Your task to perform on an android device: delete location history Image 0: 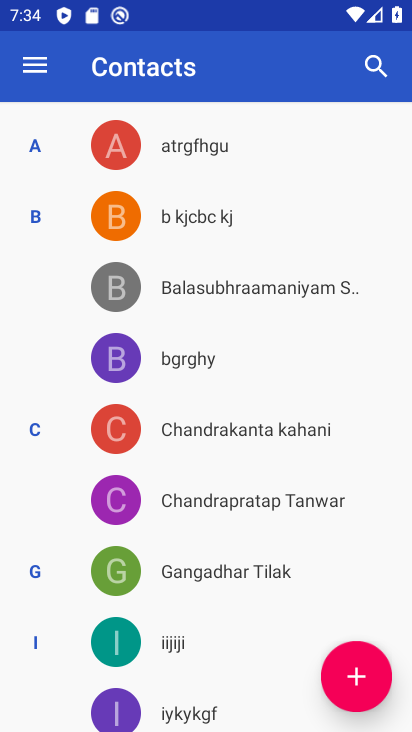
Step 0: press home button
Your task to perform on an android device: delete location history Image 1: 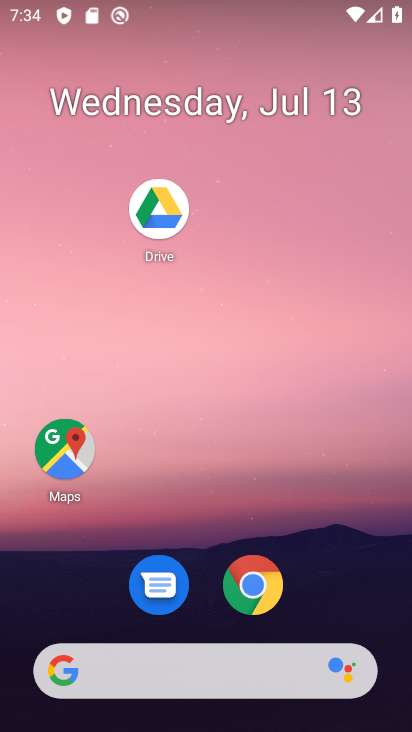
Step 1: click (60, 462)
Your task to perform on an android device: delete location history Image 2: 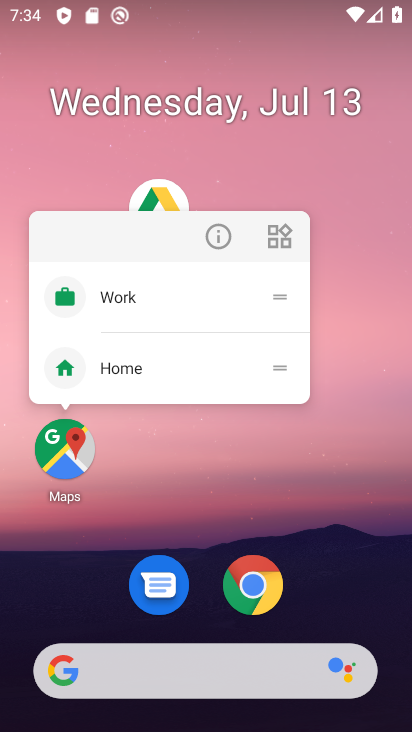
Step 2: click (65, 452)
Your task to perform on an android device: delete location history Image 3: 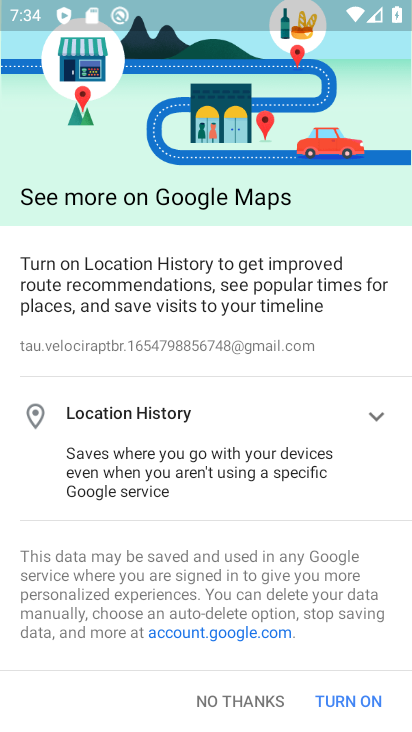
Step 3: click (249, 706)
Your task to perform on an android device: delete location history Image 4: 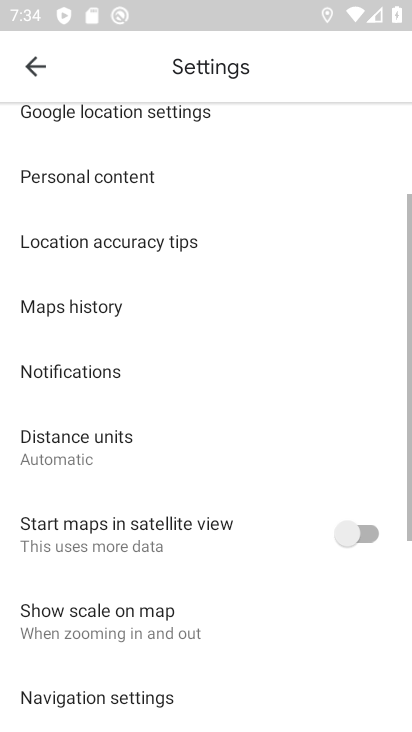
Step 4: click (43, 66)
Your task to perform on an android device: delete location history Image 5: 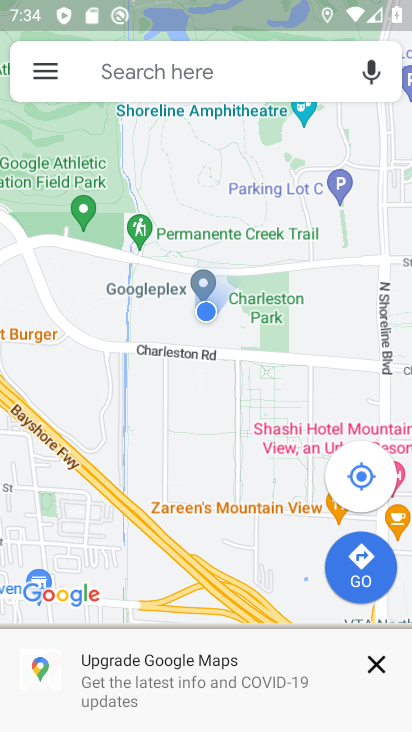
Step 5: click (43, 66)
Your task to perform on an android device: delete location history Image 6: 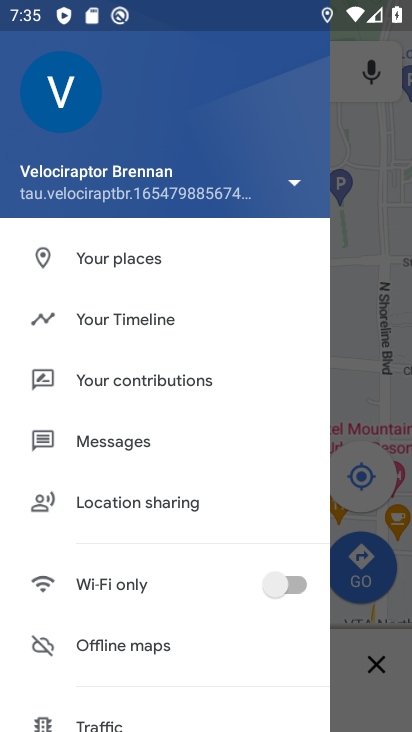
Step 6: click (151, 323)
Your task to perform on an android device: delete location history Image 7: 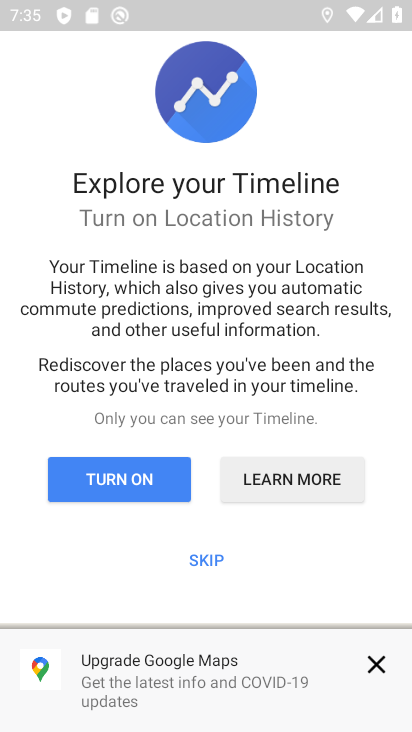
Step 7: click (218, 554)
Your task to perform on an android device: delete location history Image 8: 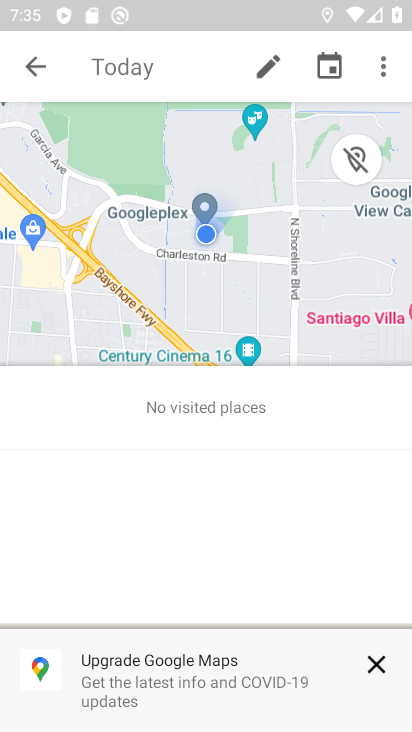
Step 8: click (379, 70)
Your task to perform on an android device: delete location history Image 9: 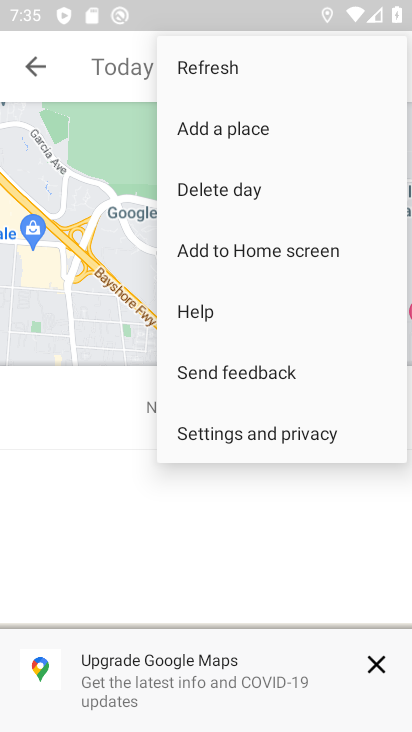
Step 9: click (265, 434)
Your task to perform on an android device: delete location history Image 10: 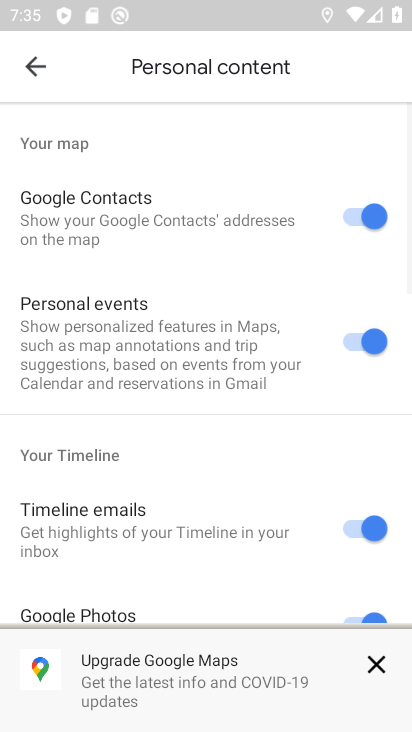
Step 10: drag from (180, 531) to (282, 145)
Your task to perform on an android device: delete location history Image 11: 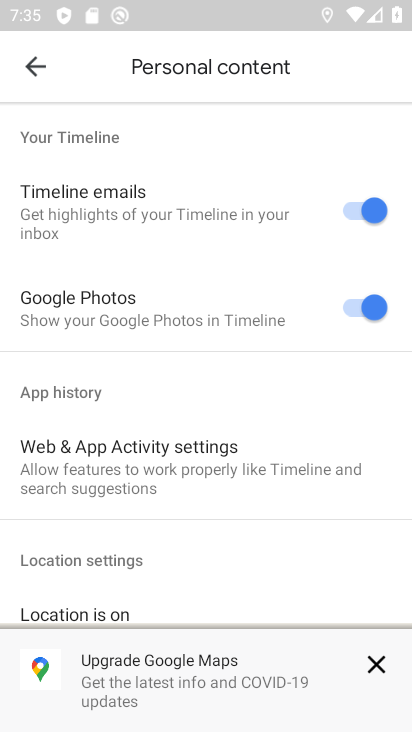
Step 11: drag from (147, 523) to (264, 111)
Your task to perform on an android device: delete location history Image 12: 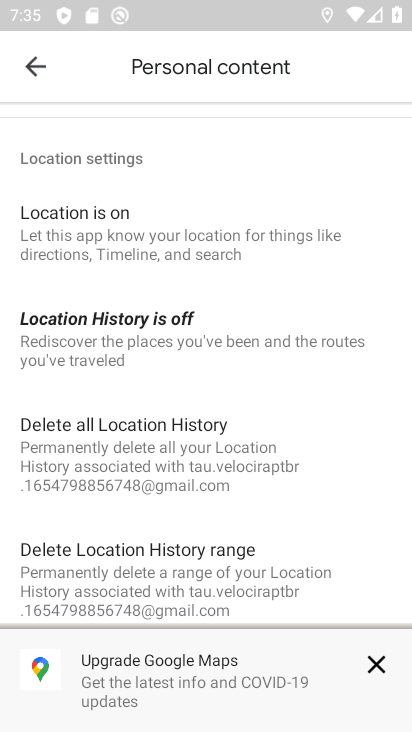
Step 12: click (178, 434)
Your task to perform on an android device: delete location history Image 13: 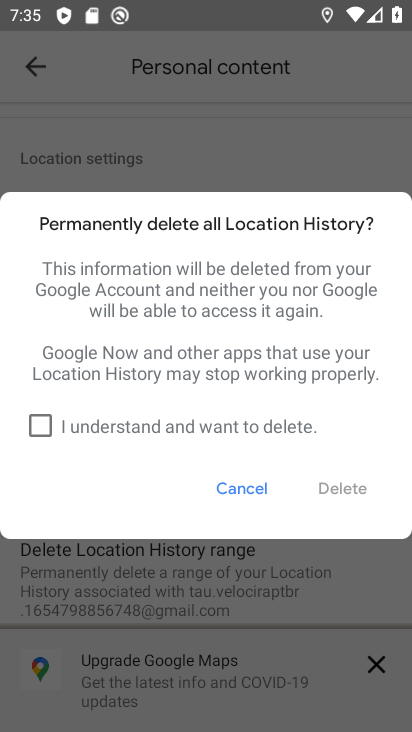
Step 13: click (38, 416)
Your task to perform on an android device: delete location history Image 14: 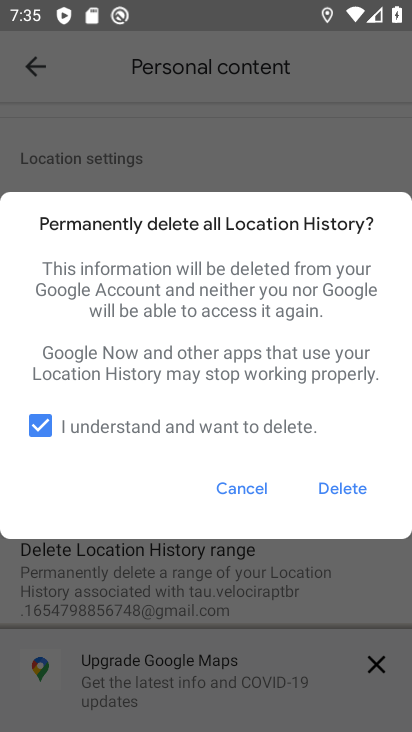
Step 14: click (341, 482)
Your task to perform on an android device: delete location history Image 15: 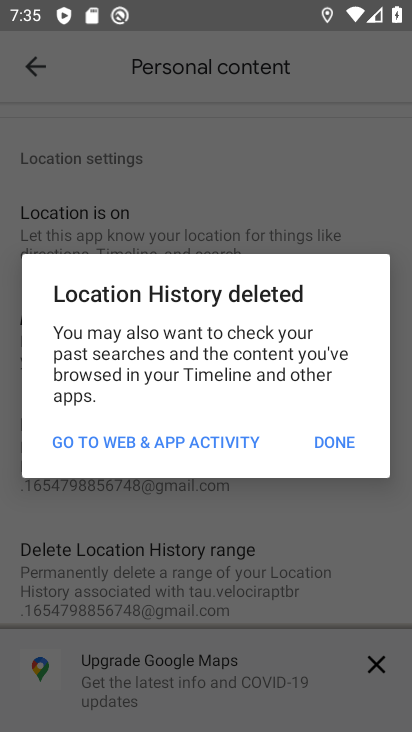
Step 15: click (323, 439)
Your task to perform on an android device: delete location history Image 16: 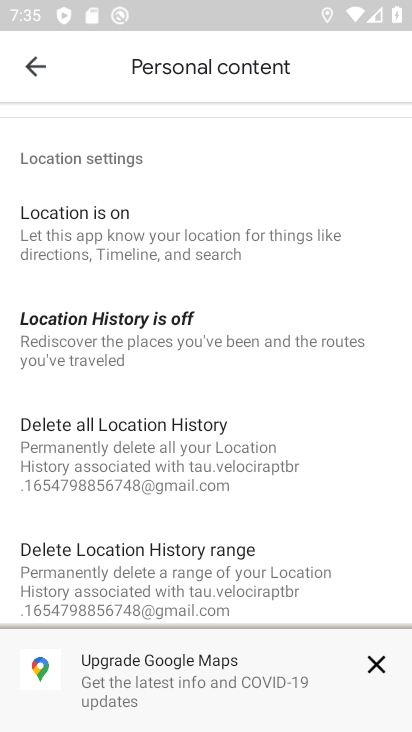
Step 16: task complete